Your task to perform on an android device: Open the phone app and click the voicemail tab. Image 0: 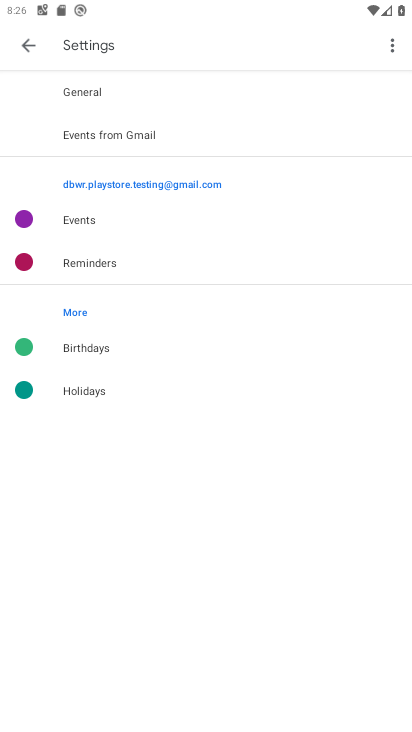
Step 0: press home button
Your task to perform on an android device: Open the phone app and click the voicemail tab. Image 1: 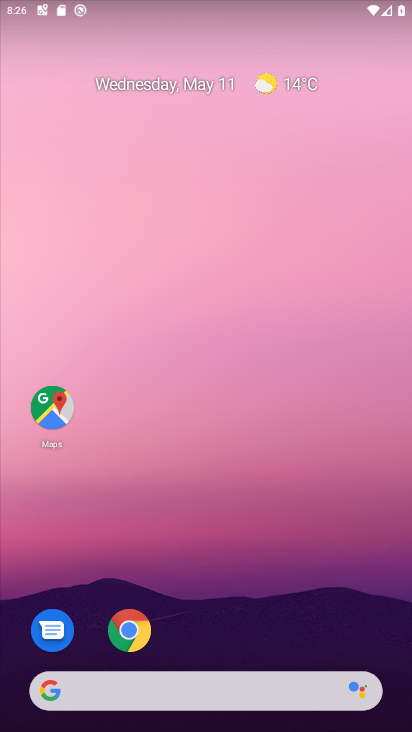
Step 1: drag from (27, 614) to (228, 166)
Your task to perform on an android device: Open the phone app and click the voicemail tab. Image 2: 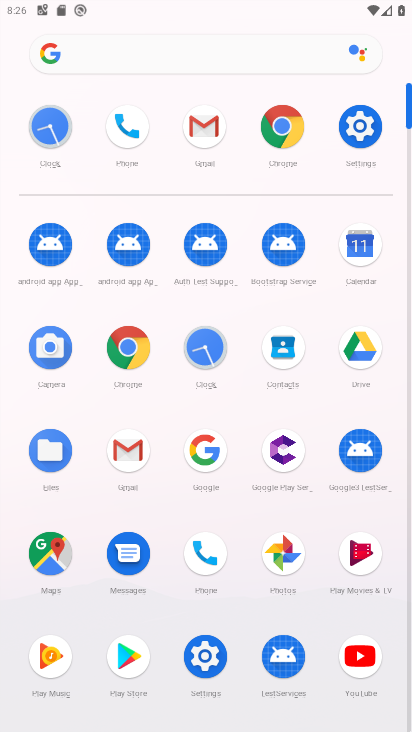
Step 2: click (198, 558)
Your task to perform on an android device: Open the phone app and click the voicemail tab. Image 3: 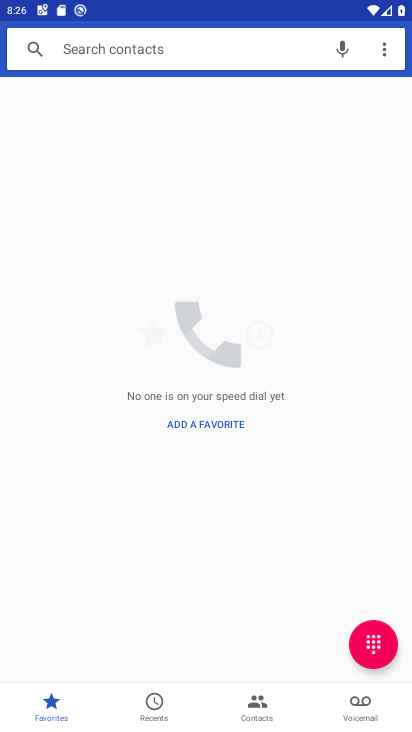
Step 3: click (361, 704)
Your task to perform on an android device: Open the phone app and click the voicemail tab. Image 4: 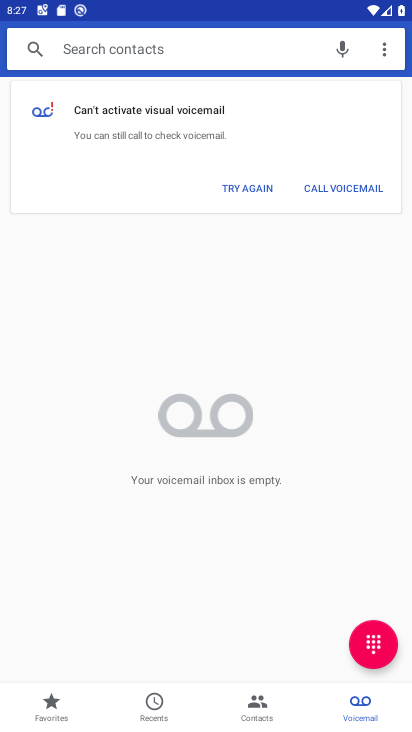
Step 4: task complete